Your task to perform on an android device: open app "Flipkart Online Shopping App" (install if not already installed) Image 0: 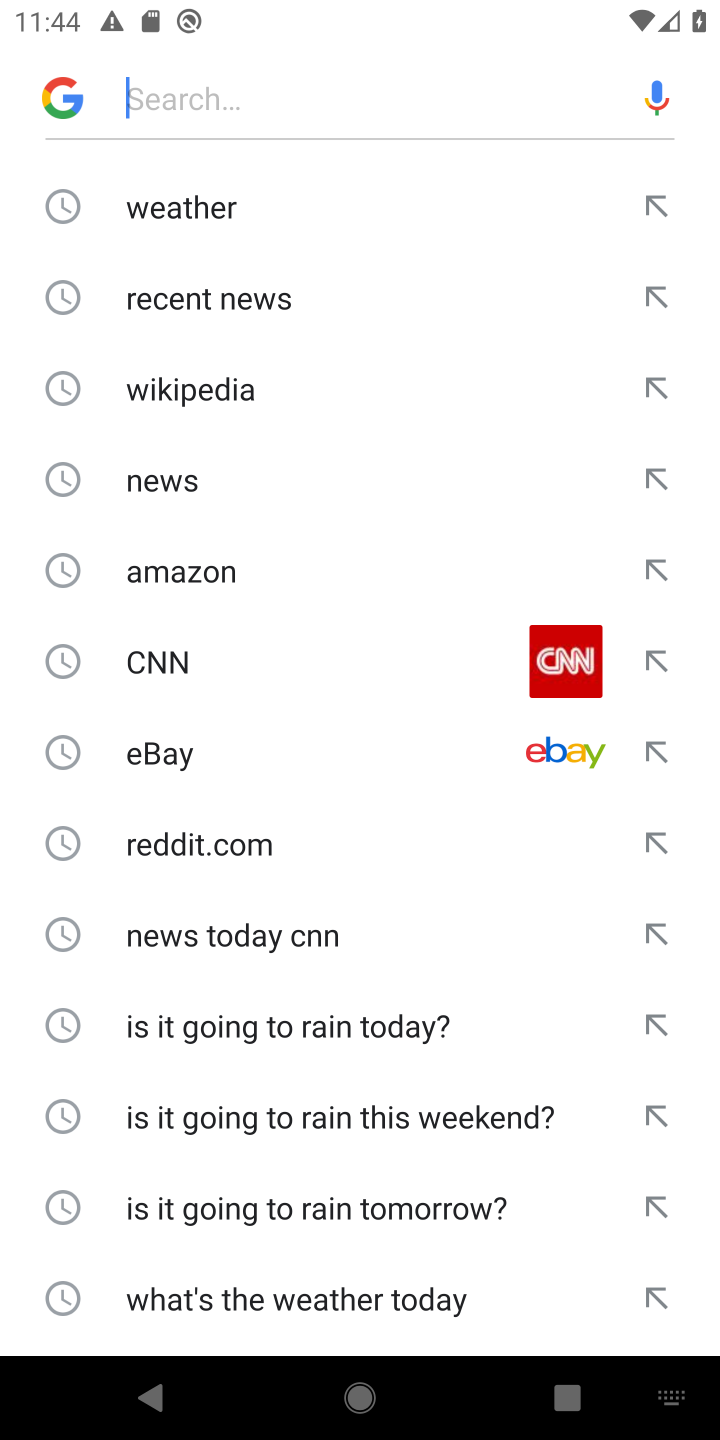
Step 0: press home button
Your task to perform on an android device: open app "Flipkart Online Shopping App" (install if not already installed) Image 1: 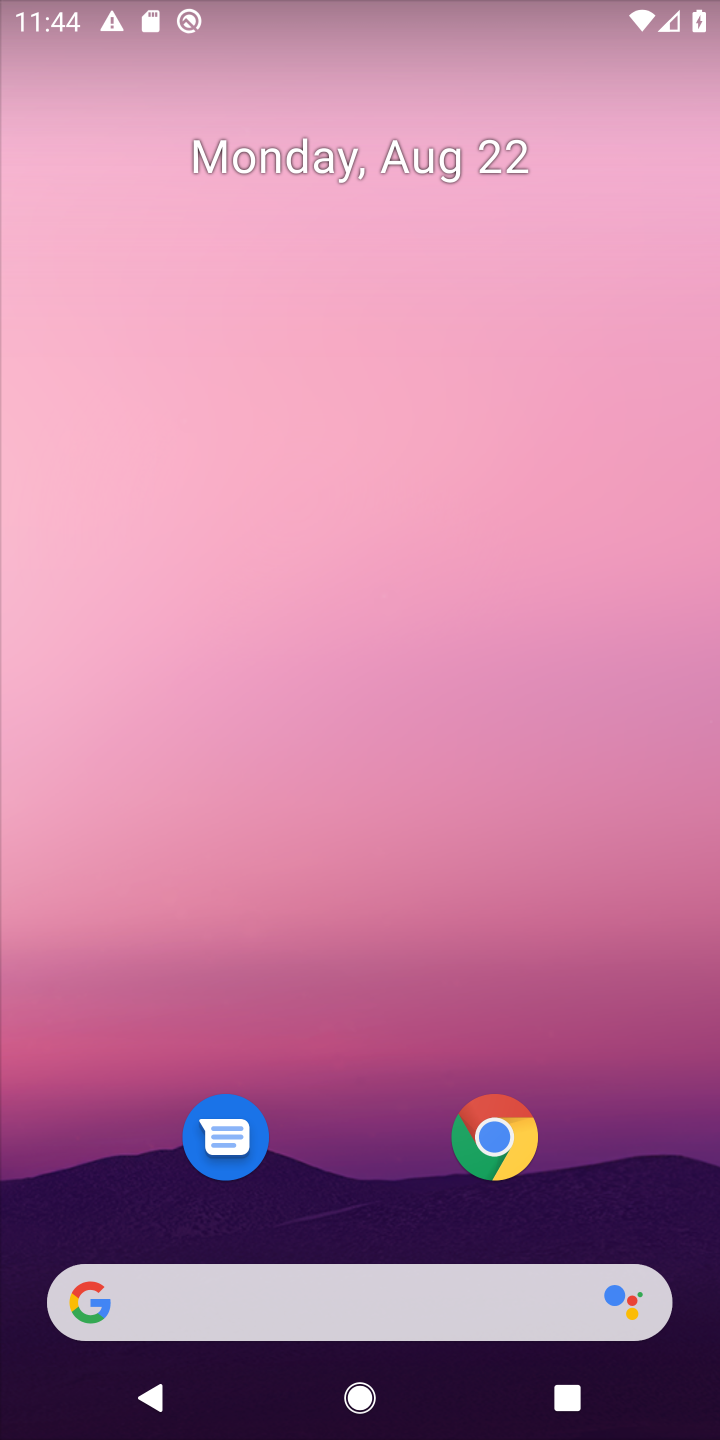
Step 1: drag from (310, 473) to (316, 336)
Your task to perform on an android device: open app "Flipkart Online Shopping App" (install if not already installed) Image 2: 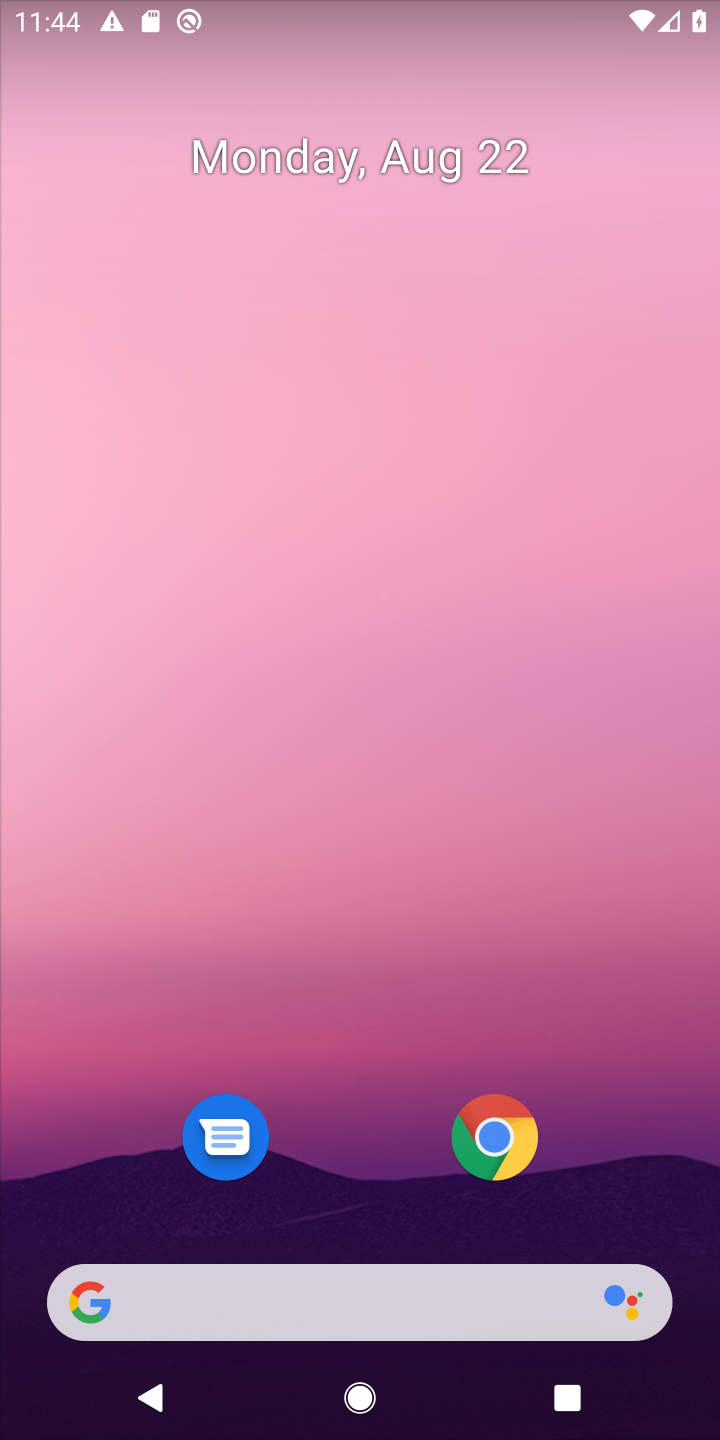
Step 2: drag from (435, 759) to (461, 8)
Your task to perform on an android device: open app "Flipkart Online Shopping App" (install if not already installed) Image 3: 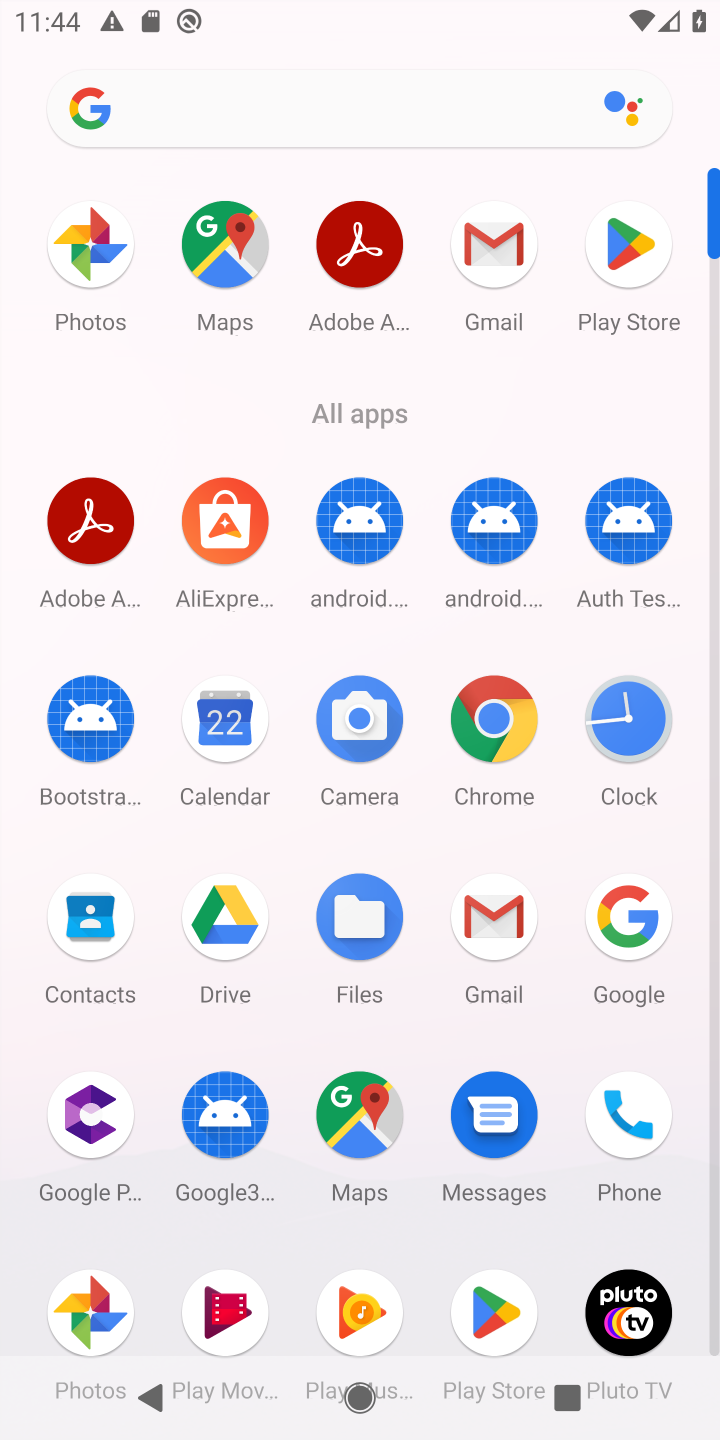
Step 3: click (636, 235)
Your task to perform on an android device: open app "Flipkart Online Shopping App" (install if not already installed) Image 4: 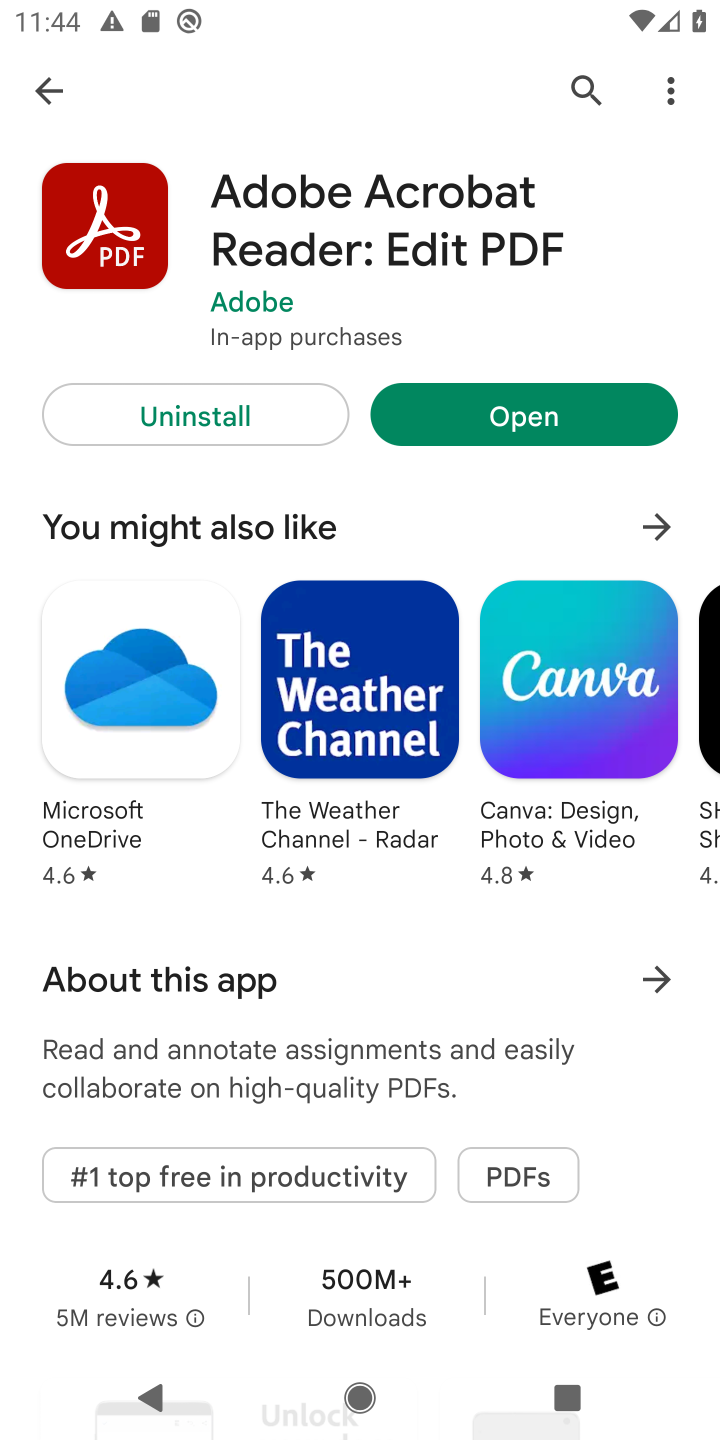
Step 4: click (33, 86)
Your task to perform on an android device: open app "Flipkart Online Shopping App" (install if not already installed) Image 5: 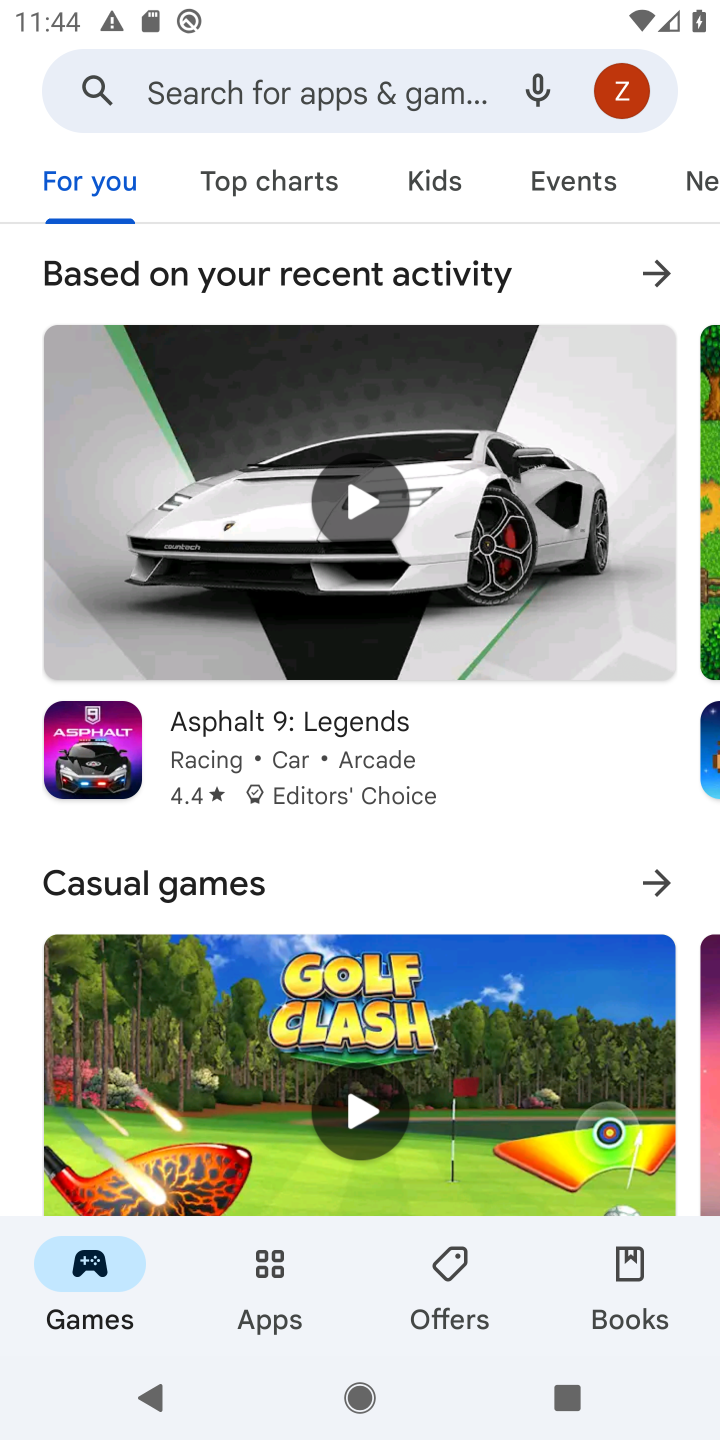
Step 5: click (327, 65)
Your task to perform on an android device: open app "Flipkart Online Shopping App" (install if not already installed) Image 6: 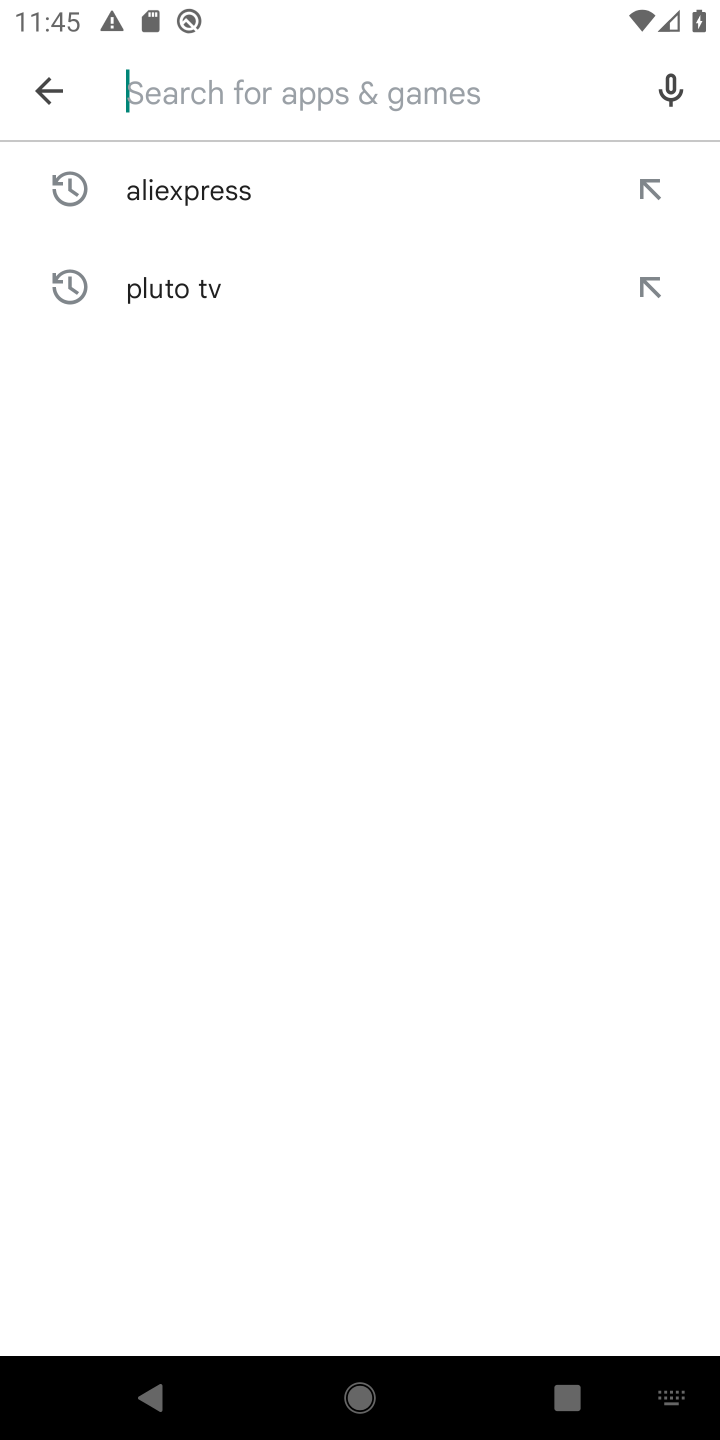
Step 6: type "Flipkart Online Shopping App"
Your task to perform on an android device: open app "Flipkart Online Shopping App" (install if not already installed) Image 7: 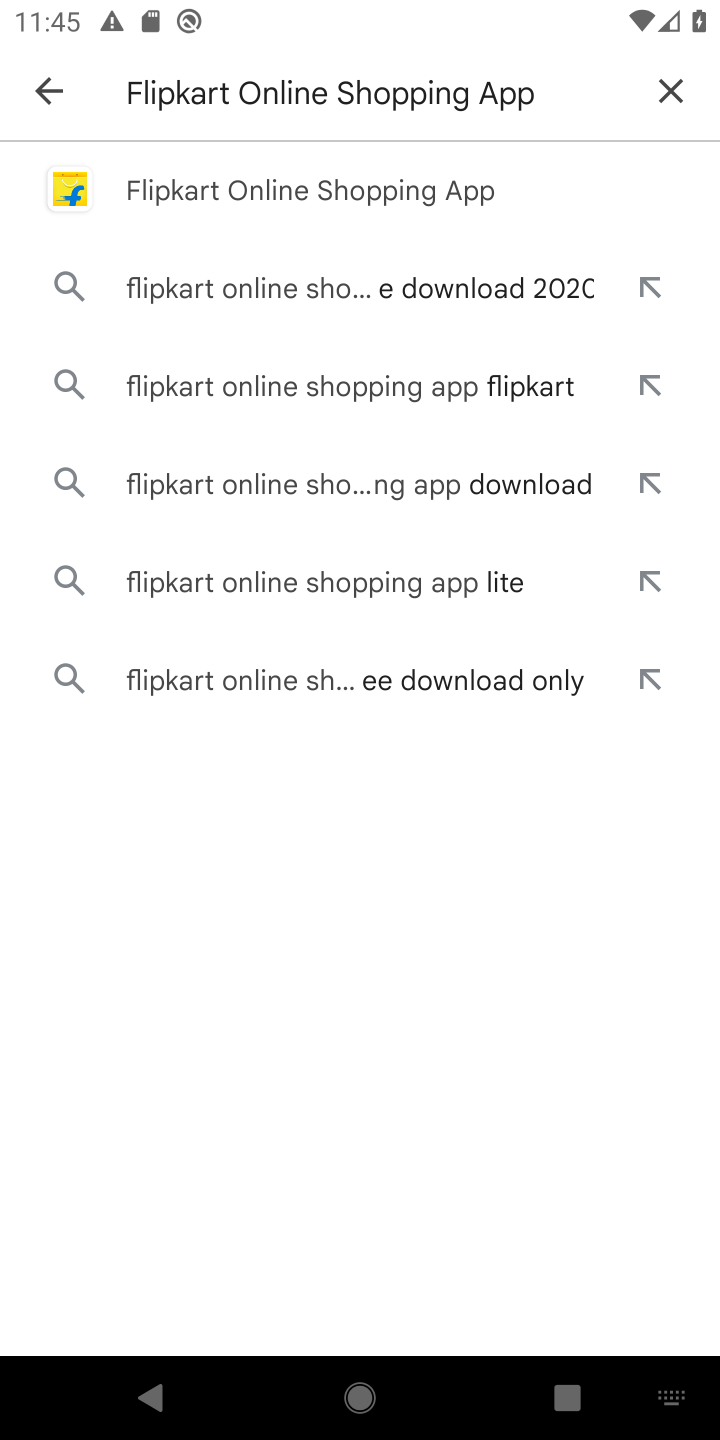
Step 7: click (264, 192)
Your task to perform on an android device: open app "Flipkart Online Shopping App" (install if not already installed) Image 8: 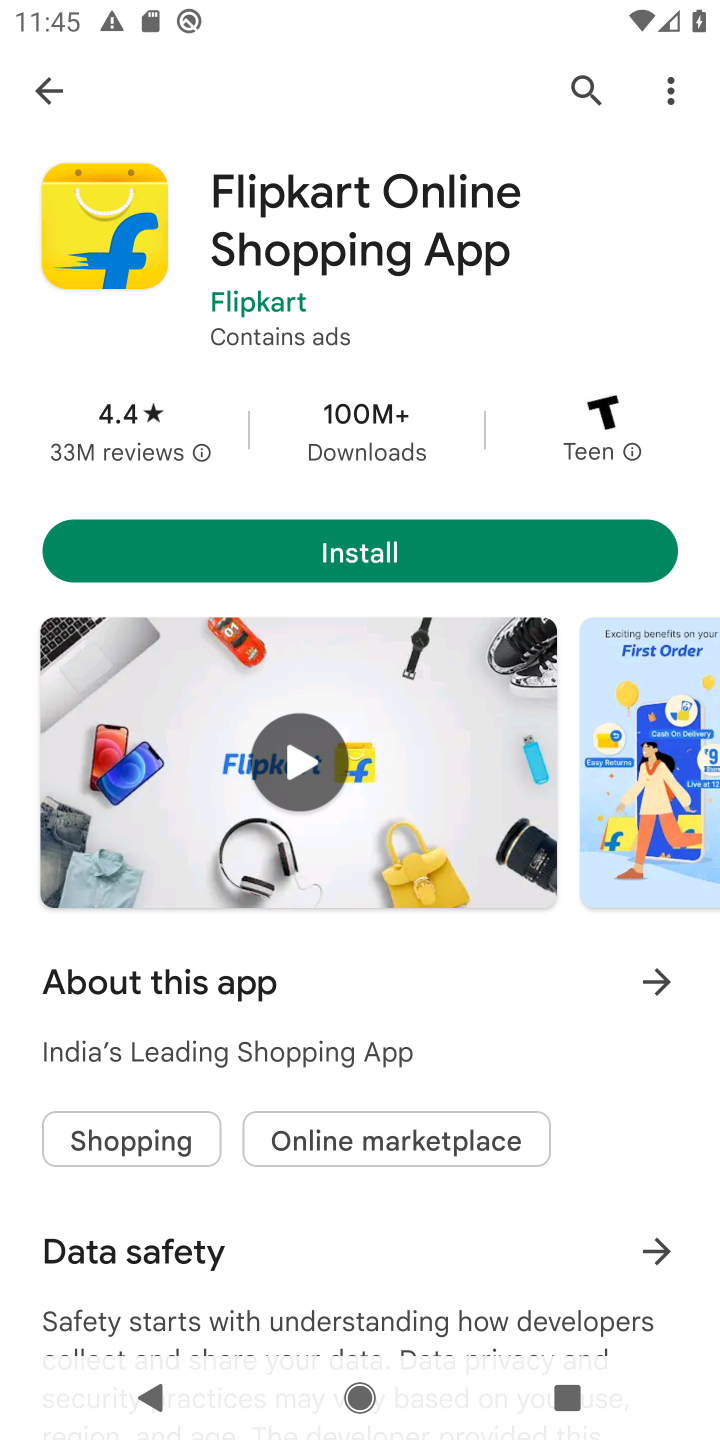
Step 8: click (328, 547)
Your task to perform on an android device: open app "Flipkart Online Shopping App" (install if not already installed) Image 9: 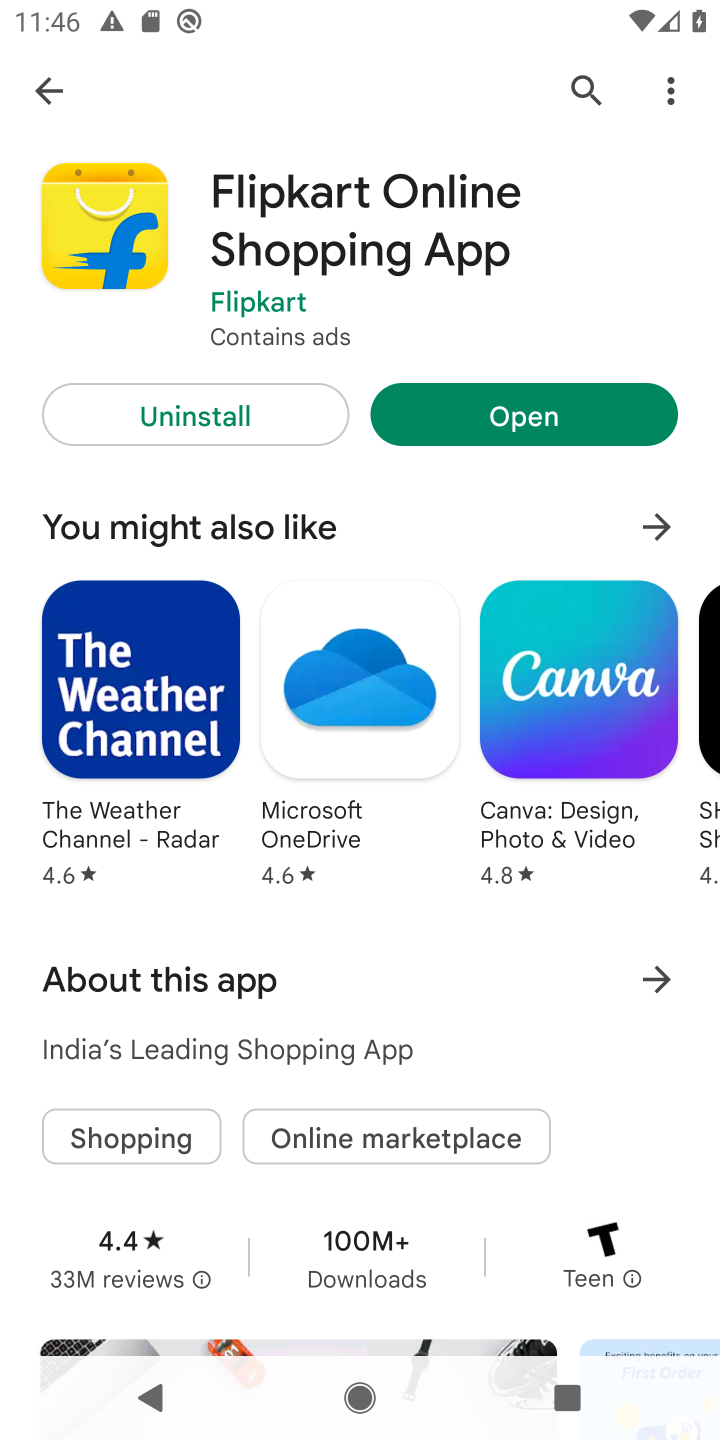
Step 9: click (502, 439)
Your task to perform on an android device: open app "Flipkart Online Shopping App" (install if not already installed) Image 10: 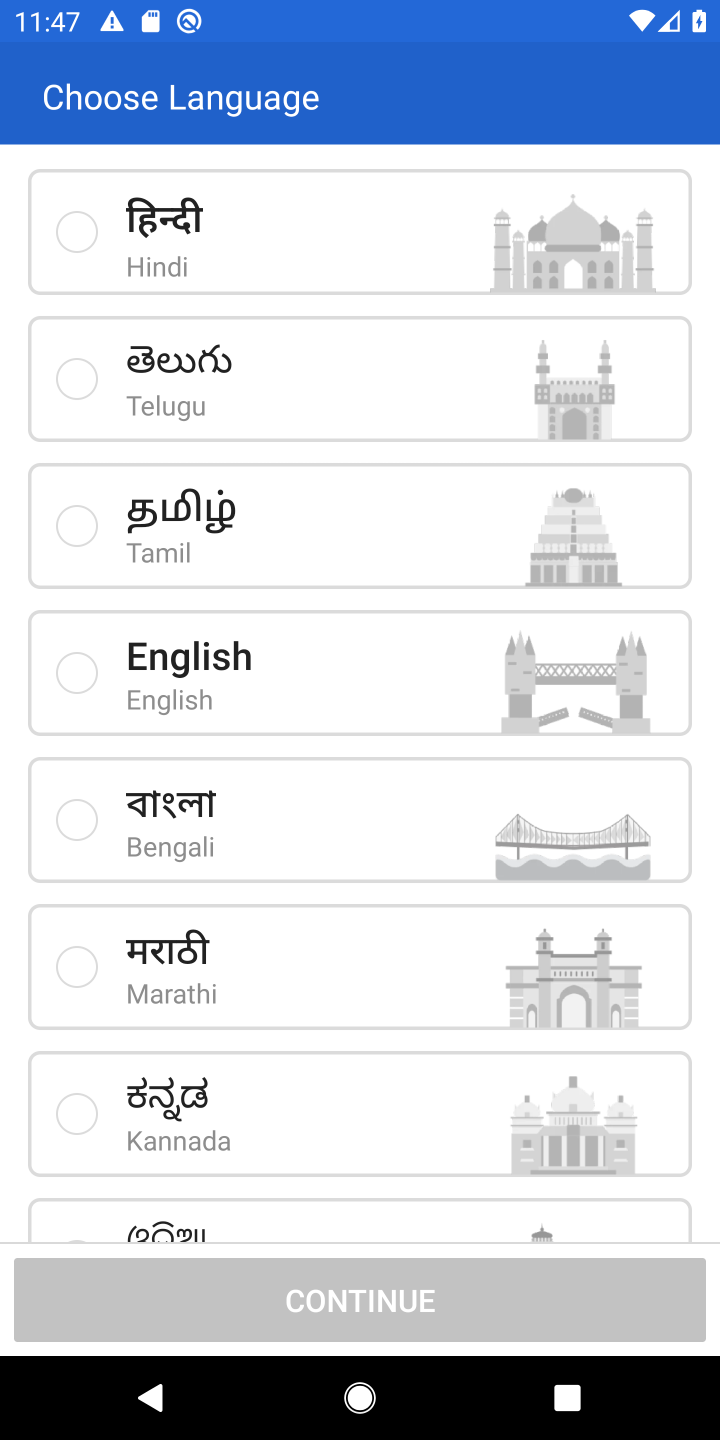
Step 10: task complete